Your task to perform on an android device: Go to Android settings Image 0: 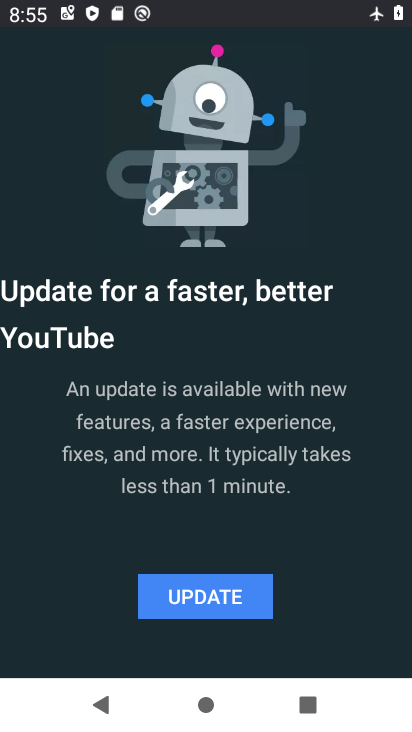
Step 0: press home button
Your task to perform on an android device: Go to Android settings Image 1: 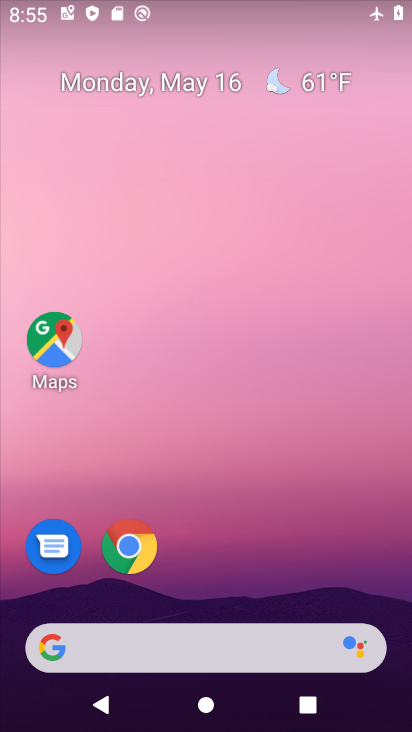
Step 1: drag from (335, 568) to (236, 180)
Your task to perform on an android device: Go to Android settings Image 2: 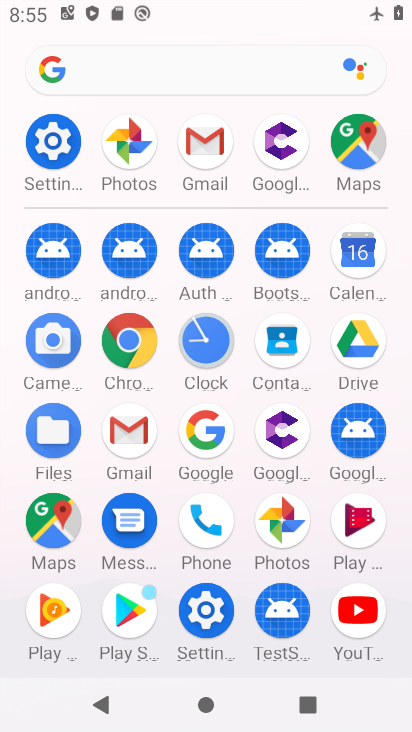
Step 2: click (207, 618)
Your task to perform on an android device: Go to Android settings Image 3: 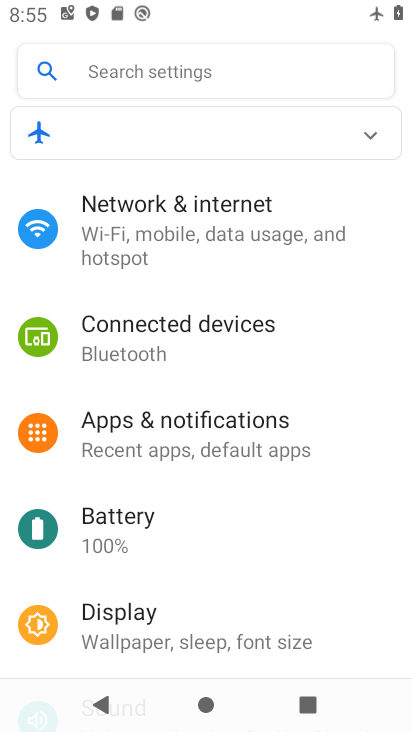
Step 3: task complete